Your task to perform on an android device: Look up the best rated hair dryer on Walmart. Image 0: 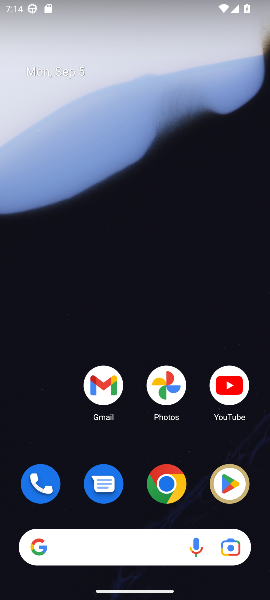
Step 0: drag from (88, 427) to (56, 172)
Your task to perform on an android device: Look up the best rated hair dryer on Walmart. Image 1: 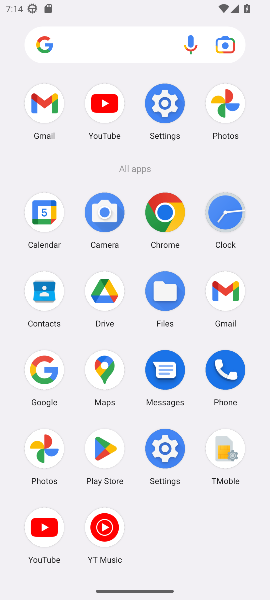
Step 1: click (173, 212)
Your task to perform on an android device: Look up the best rated hair dryer on Walmart. Image 2: 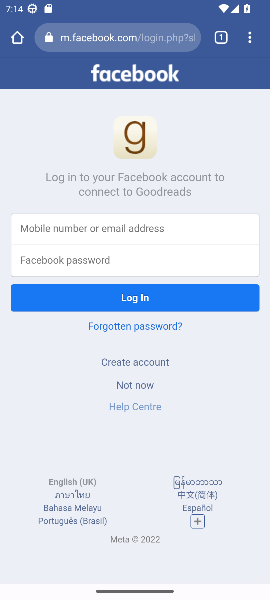
Step 2: click (143, 42)
Your task to perform on an android device: Look up the best rated hair dryer on Walmart. Image 3: 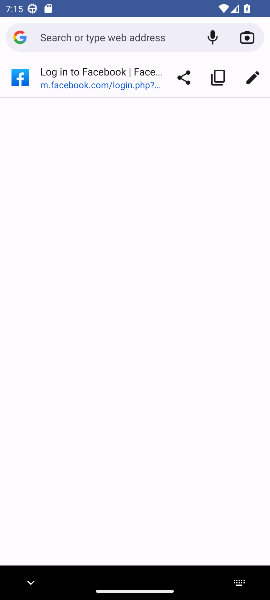
Step 3: press enter
Your task to perform on an android device: Look up the best rated hair dryer on Walmart. Image 4: 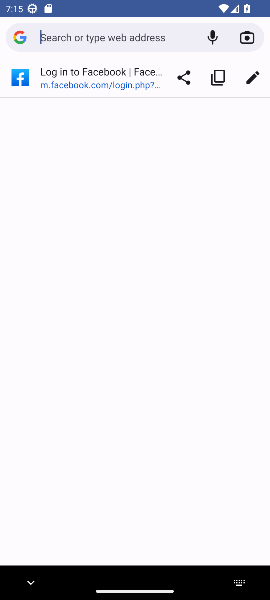
Step 4: type "Walmart"
Your task to perform on an android device: Look up the best rated hair dryer on Walmart. Image 5: 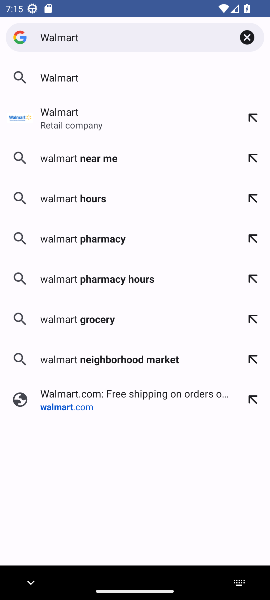
Step 5: click (26, 78)
Your task to perform on an android device: Look up the best rated hair dryer on Walmart. Image 6: 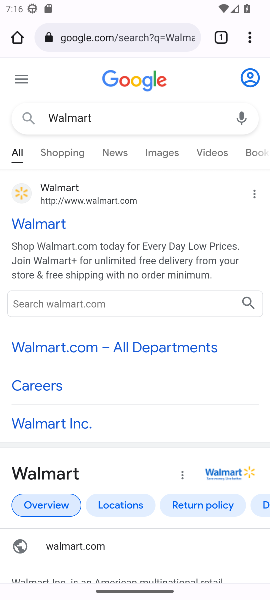
Step 6: click (39, 236)
Your task to perform on an android device: Look up the best rated hair dryer on Walmart. Image 7: 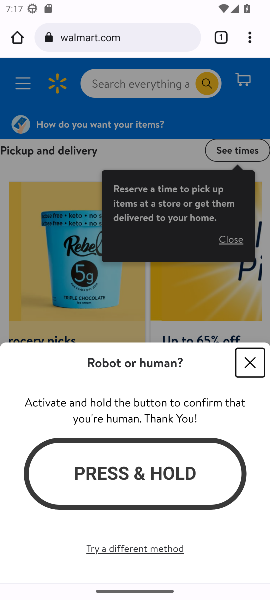
Step 7: click (249, 357)
Your task to perform on an android device: Look up the best rated hair dryer on Walmart. Image 8: 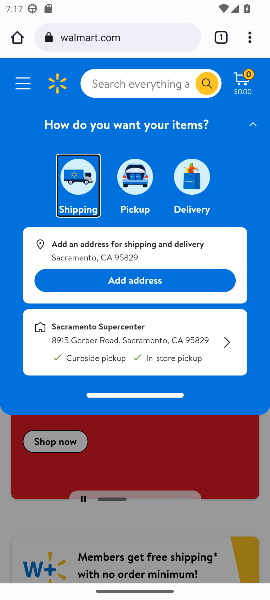
Step 8: click (130, 97)
Your task to perform on an android device: Look up the best rated hair dryer on Walmart. Image 9: 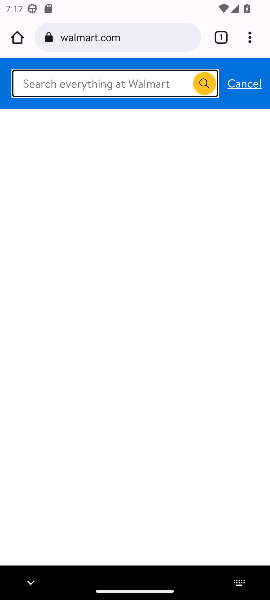
Step 9: type "best rated hair dryer"
Your task to perform on an android device: Look up the best rated hair dryer on Walmart. Image 10: 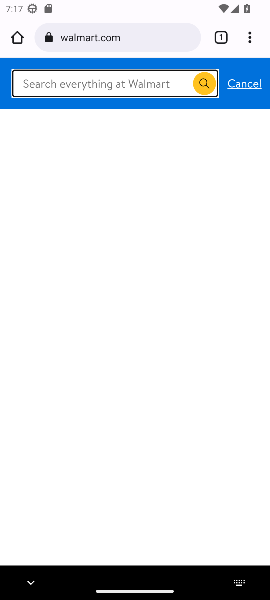
Step 10: press enter
Your task to perform on an android device: Look up the best rated hair dryer on Walmart. Image 11: 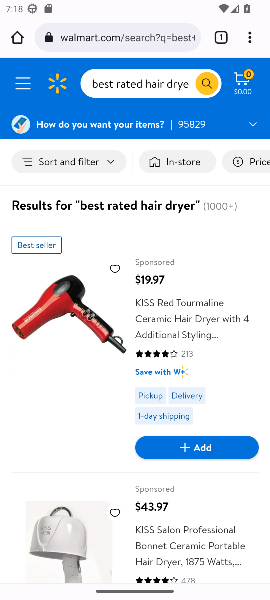
Step 11: task complete